Your task to perform on an android device: star an email in the gmail app Image 0: 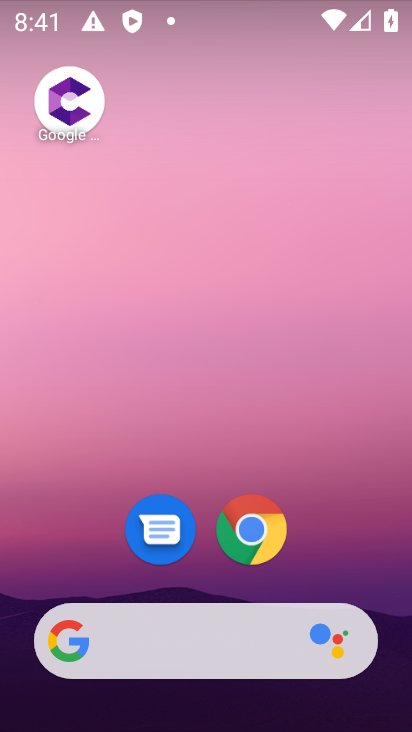
Step 0: drag from (217, 485) to (238, 3)
Your task to perform on an android device: star an email in the gmail app Image 1: 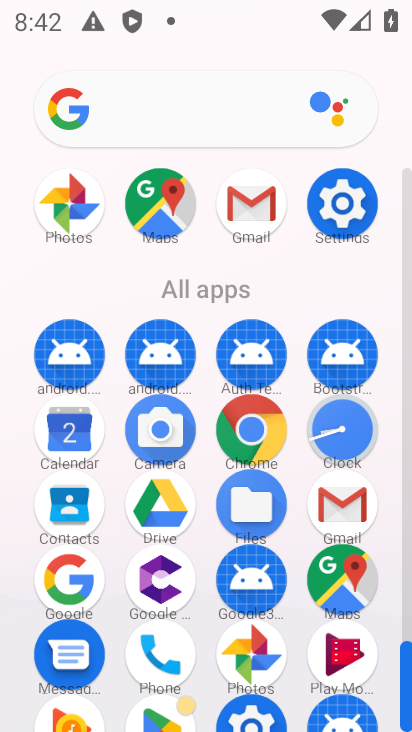
Step 1: click (342, 497)
Your task to perform on an android device: star an email in the gmail app Image 2: 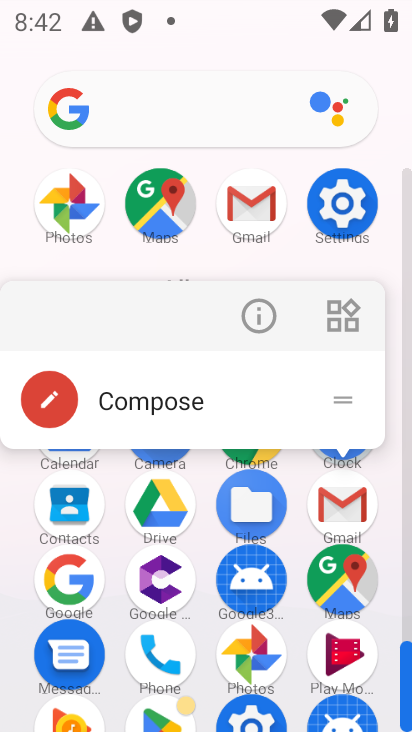
Step 2: click (269, 323)
Your task to perform on an android device: star an email in the gmail app Image 3: 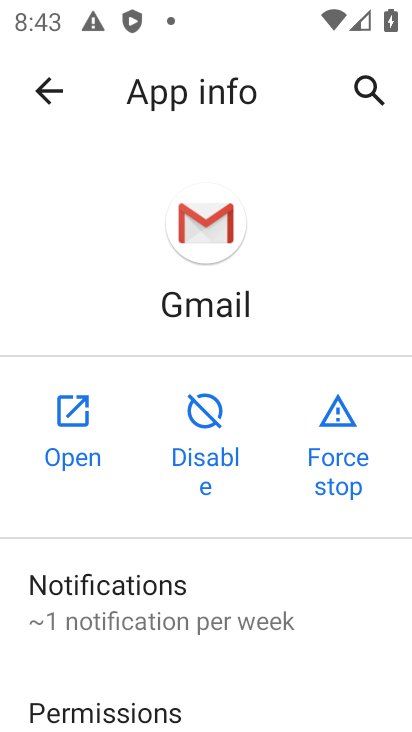
Step 3: click (74, 433)
Your task to perform on an android device: star an email in the gmail app Image 4: 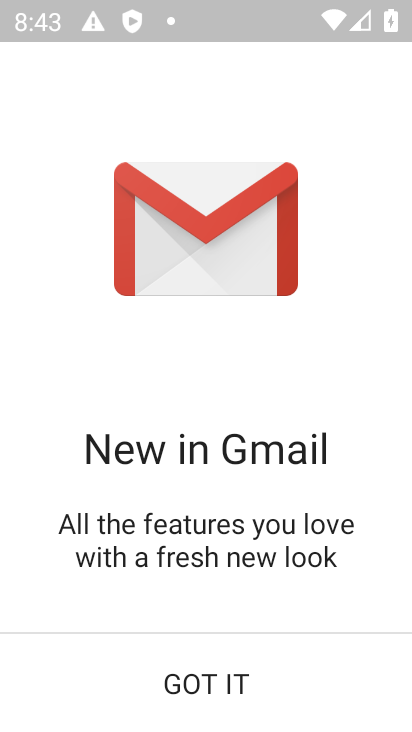
Step 4: click (206, 657)
Your task to perform on an android device: star an email in the gmail app Image 5: 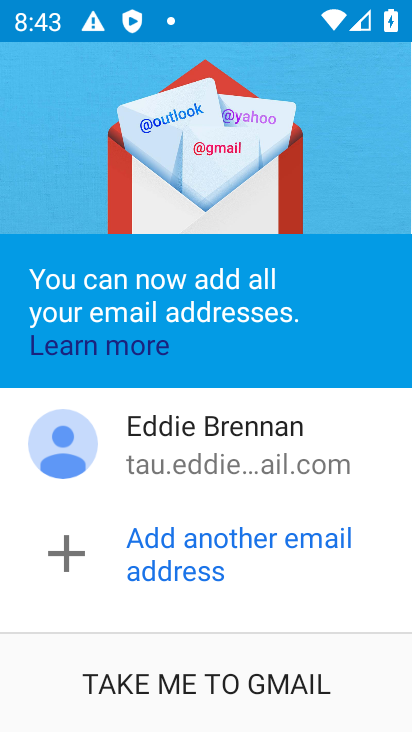
Step 5: drag from (289, 578) to (314, 331)
Your task to perform on an android device: star an email in the gmail app Image 6: 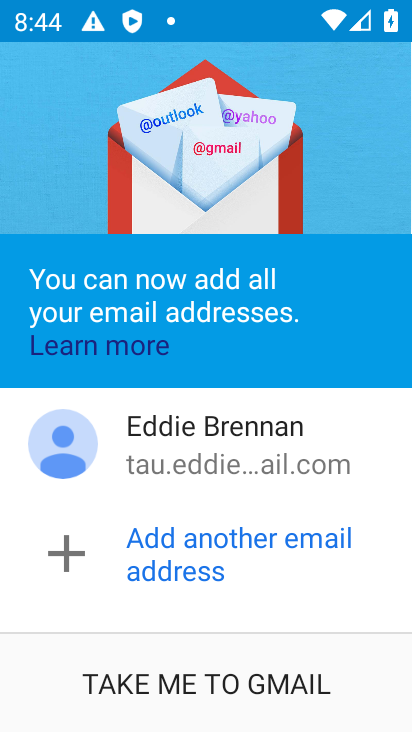
Step 6: click (162, 682)
Your task to perform on an android device: star an email in the gmail app Image 7: 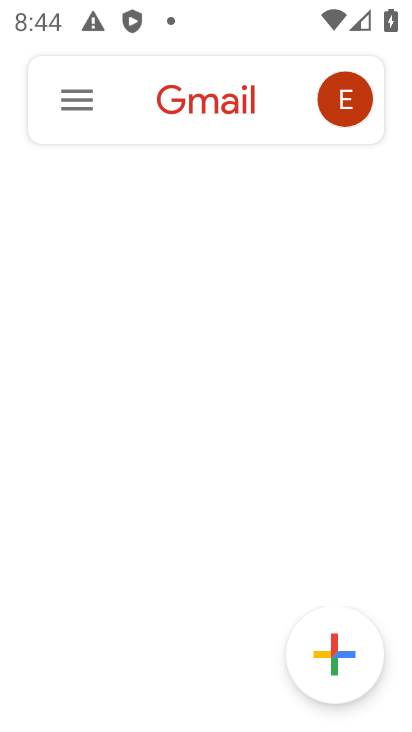
Step 7: drag from (178, 563) to (177, 215)
Your task to perform on an android device: star an email in the gmail app Image 8: 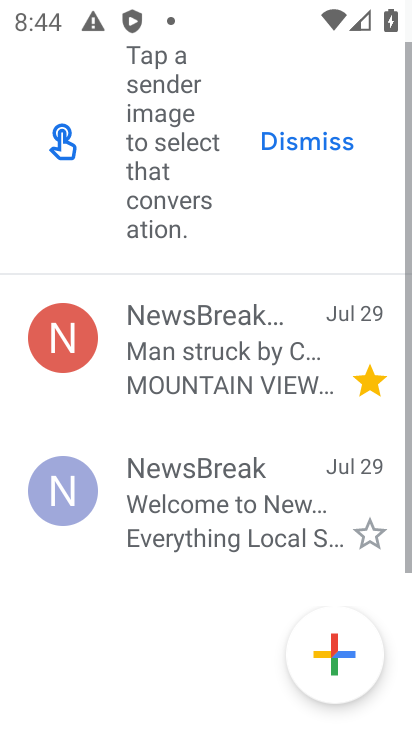
Step 8: drag from (190, 221) to (268, 675)
Your task to perform on an android device: star an email in the gmail app Image 9: 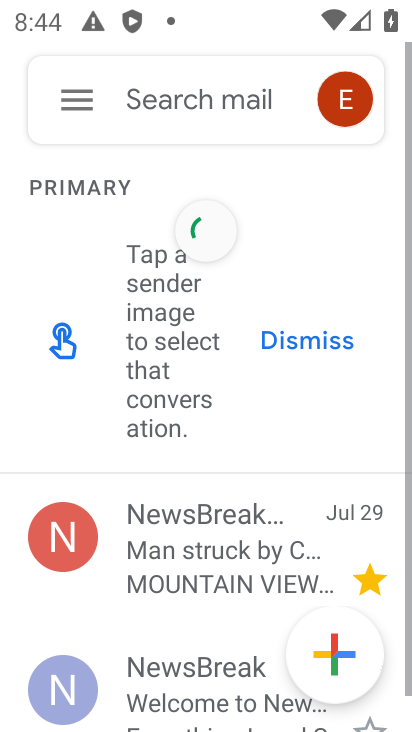
Step 9: drag from (215, 628) to (254, 267)
Your task to perform on an android device: star an email in the gmail app Image 10: 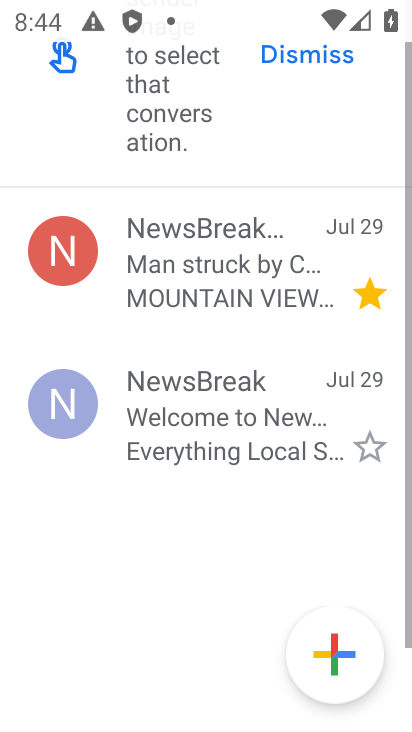
Step 10: drag from (238, 311) to (300, 616)
Your task to perform on an android device: star an email in the gmail app Image 11: 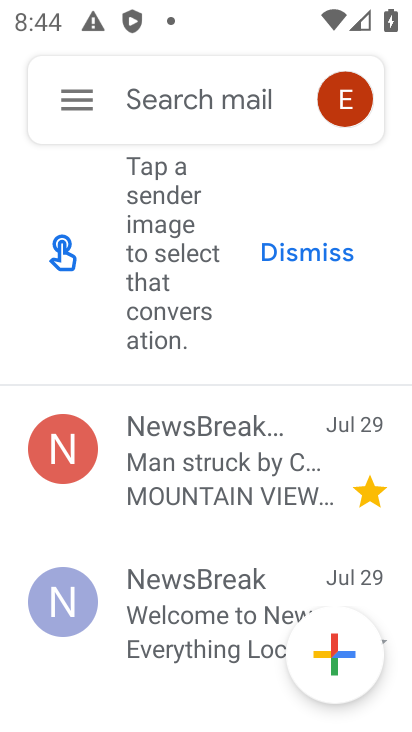
Step 11: drag from (215, 655) to (222, 290)
Your task to perform on an android device: star an email in the gmail app Image 12: 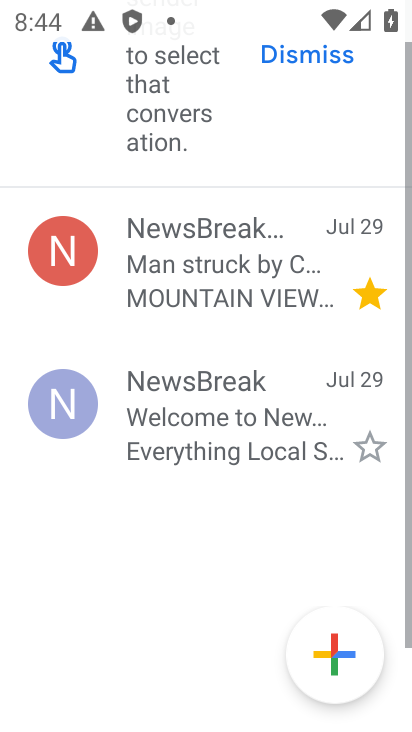
Step 12: drag from (221, 301) to (247, 697)
Your task to perform on an android device: star an email in the gmail app Image 13: 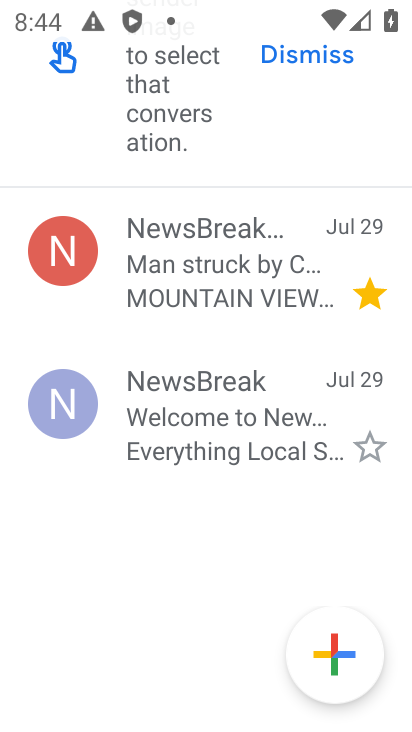
Step 13: drag from (161, 132) to (291, 727)
Your task to perform on an android device: star an email in the gmail app Image 14: 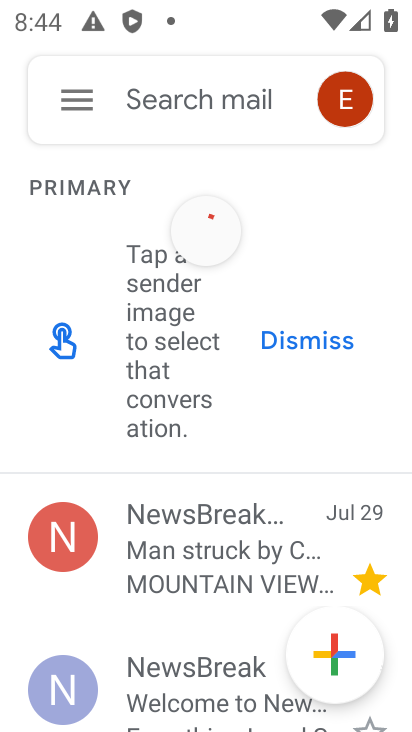
Step 14: click (92, 88)
Your task to perform on an android device: star an email in the gmail app Image 15: 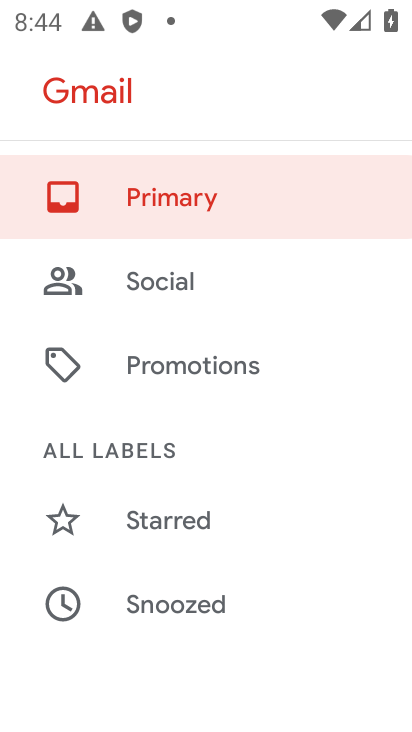
Step 15: drag from (186, 552) to (260, 261)
Your task to perform on an android device: star an email in the gmail app Image 16: 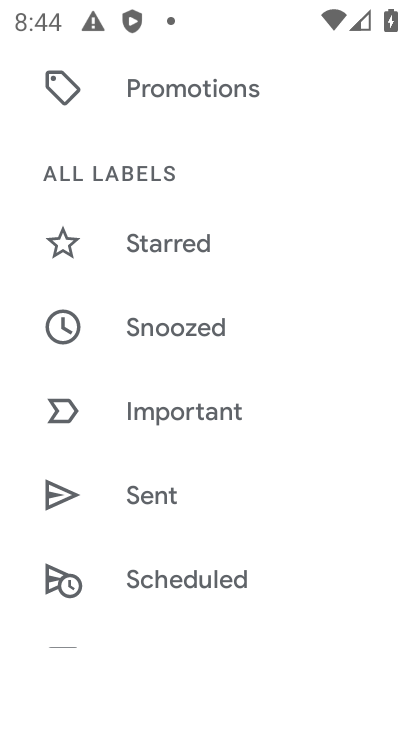
Step 16: press back button
Your task to perform on an android device: star an email in the gmail app Image 17: 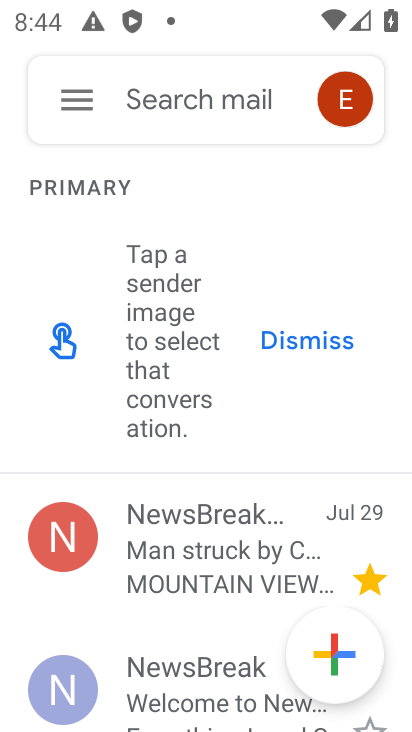
Step 17: drag from (194, 578) to (182, 214)
Your task to perform on an android device: star an email in the gmail app Image 18: 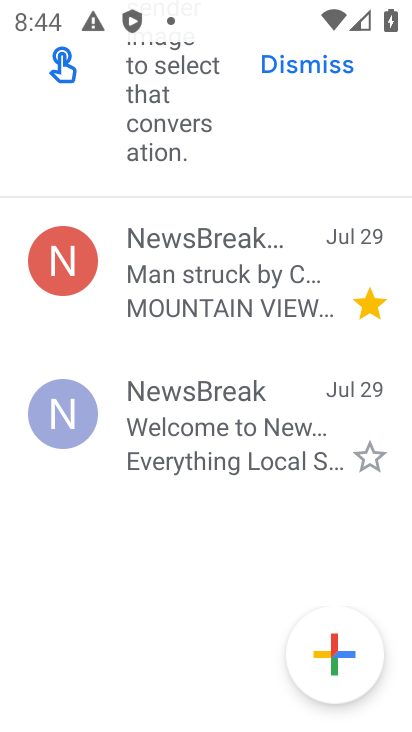
Step 18: click (252, 420)
Your task to perform on an android device: star an email in the gmail app Image 19: 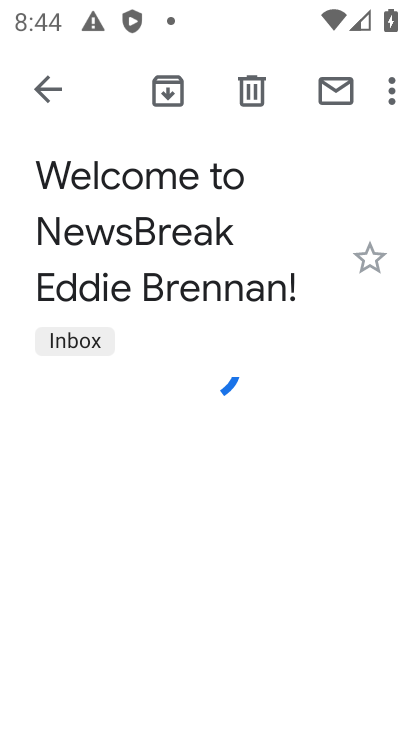
Step 19: click (374, 263)
Your task to perform on an android device: star an email in the gmail app Image 20: 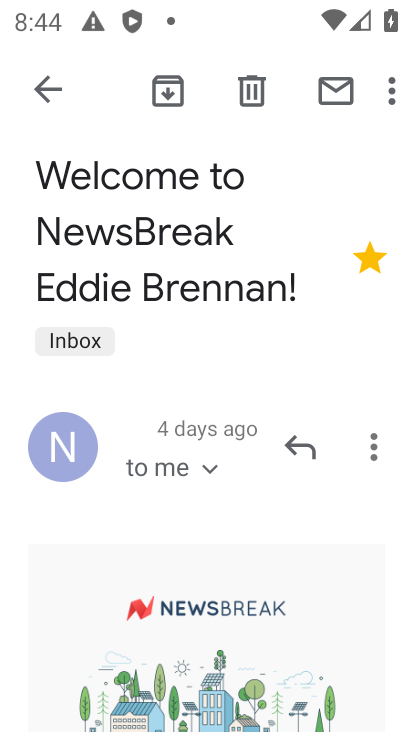
Step 20: task complete